Your task to perform on an android device: change timer sound Image 0: 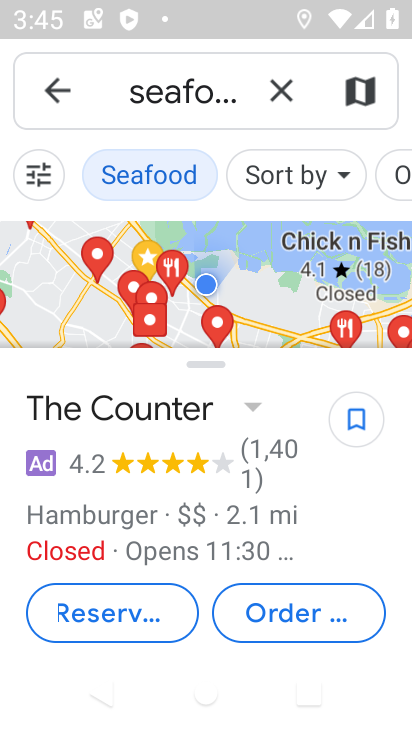
Step 0: press home button
Your task to perform on an android device: change timer sound Image 1: 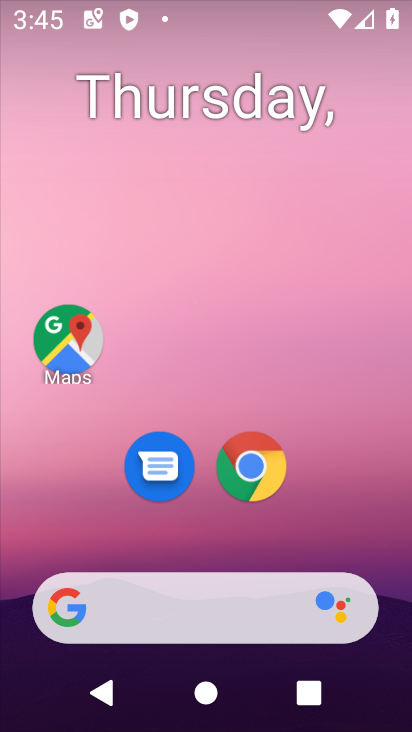
Step 1: drag from (265, 598) to (372, 11)
Your task to perform on an android device: change timer sound Image 2: 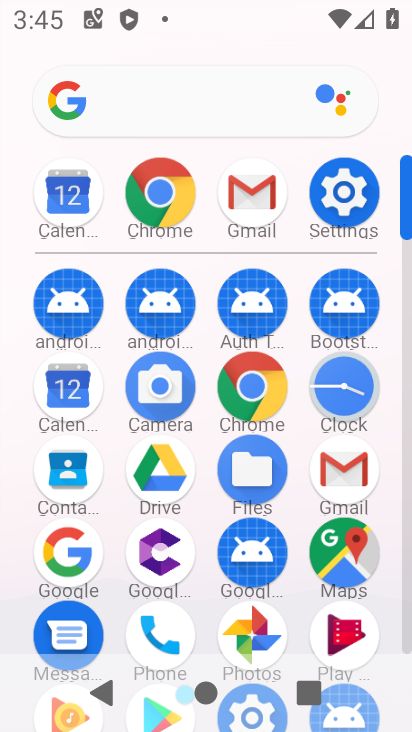
Step 2: click (357, 398)
Your task to perform on an android device: change timer sound Image 3: 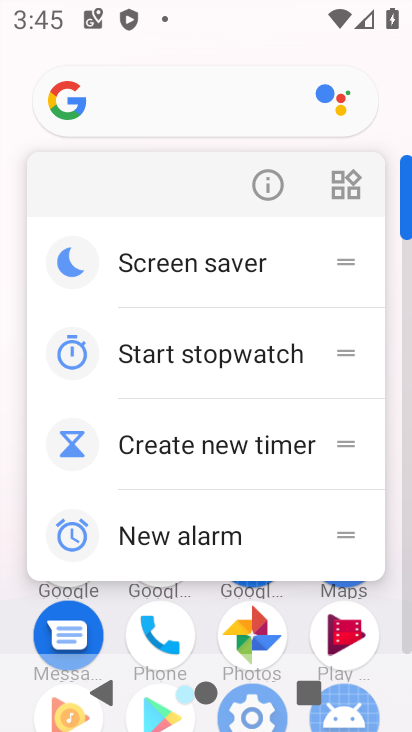
Step 3: click (392, 120)
Your task to perform on an android device: change timer sound Image 4: 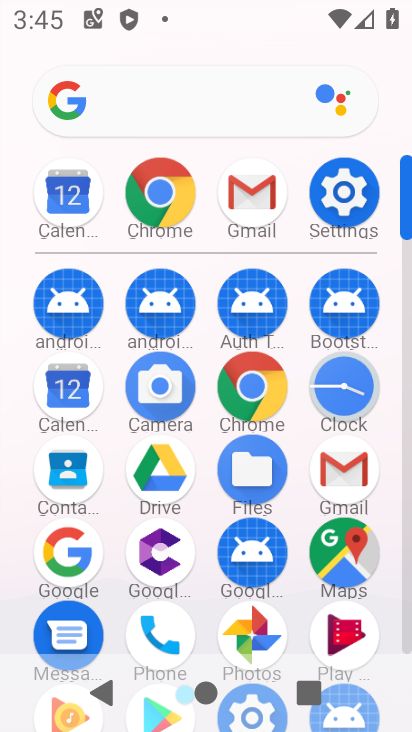
Step 4: click (338, 379)
Your task to perform on an android device: change timer sound Image 5: 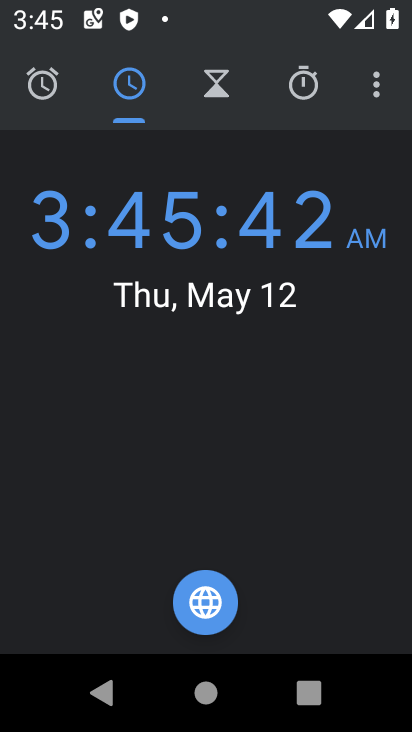
Step 5: click (220, 76)
Your task to perform on an android device: change timer sound Image 6: 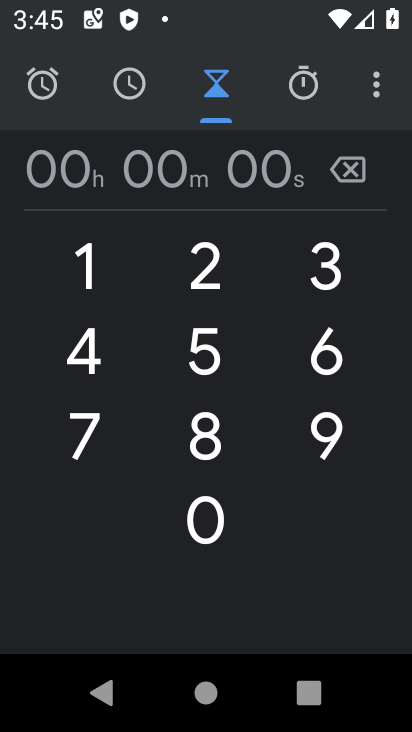
Step 6: click (208, 424)
Your task to perform on an android device: change timer sound Image 7: 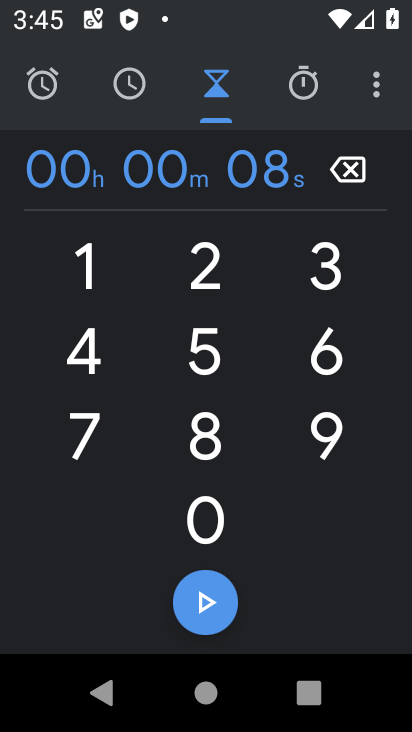
Step 7: click (205, 359)
Your task to perform on an android device: change timer sound Image 8: 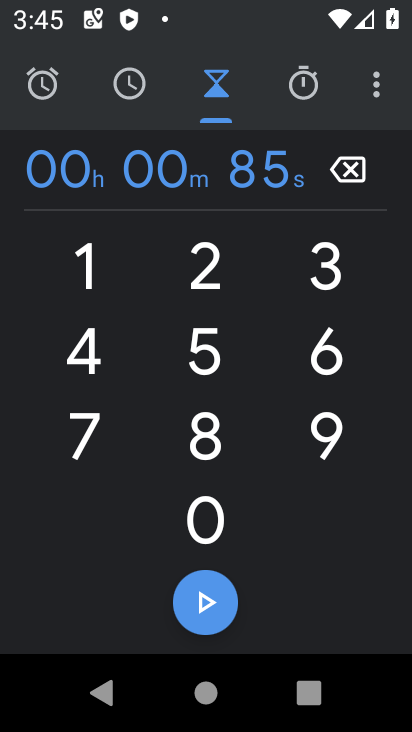
Step 8: click (211, 270)
Your task to perform on an android device: change timer sound Image 9: 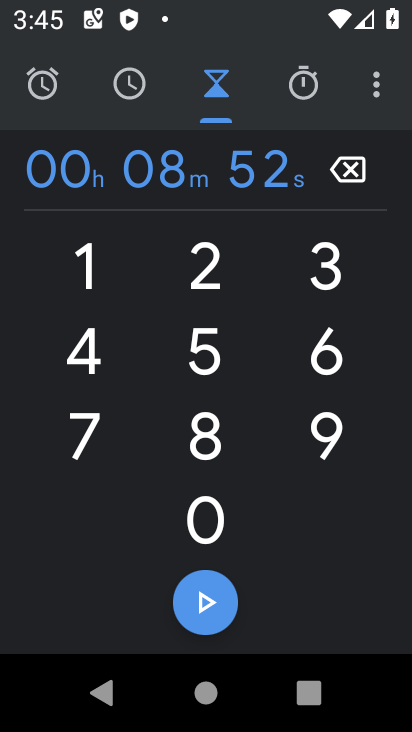
Step 9: click (324, 256)
Your task to perform on an android device: change timer sound Image 10: 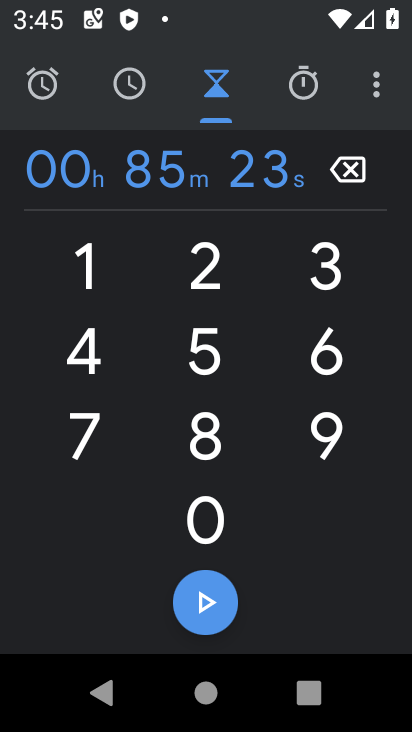
Step 10: click (91, 265)
Your task to perform on an android device: change timer sound Image 11: 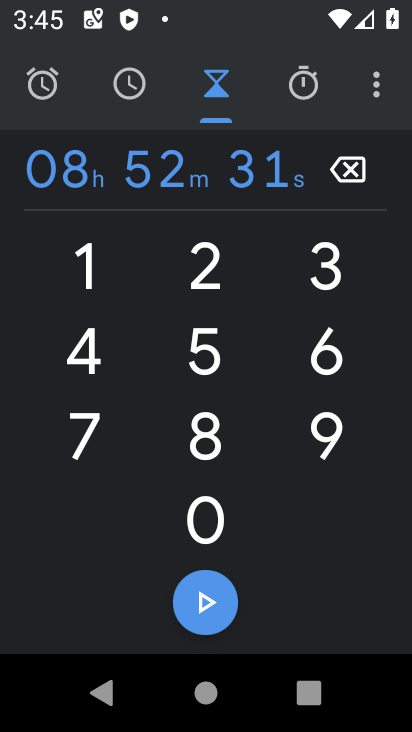
Step 11: click (72, 353)
Your task to perform on an android device: change timer sound Image 12: 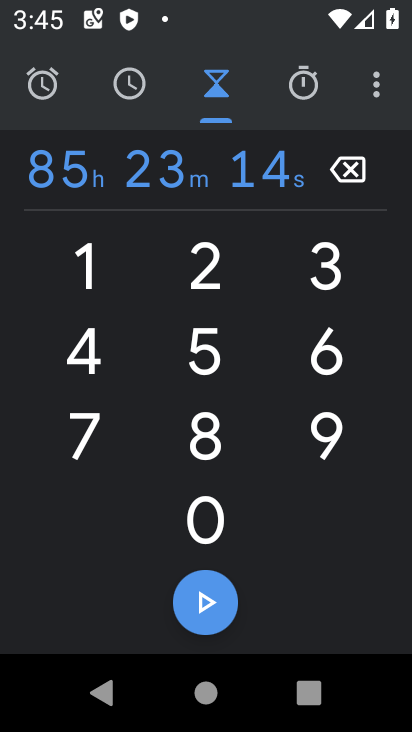
Step 12: click (202, 599)
Your task to perform on an android device: change timer sound Image 13: 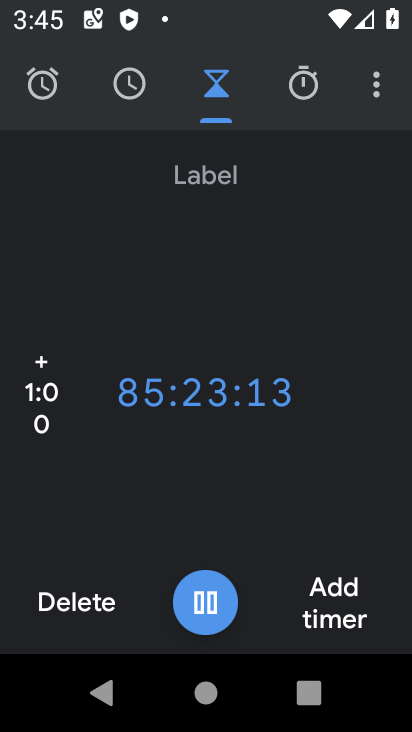
Step 13: task complete